Your task to perform on an android device: toggle sleep mode Image 0: 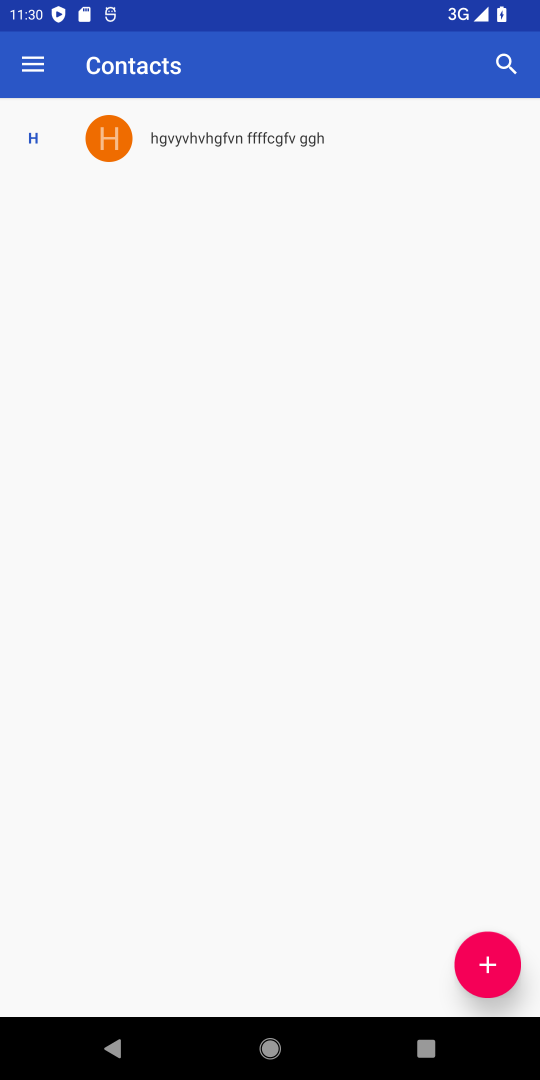
Step 0: press home button
Your task to perform on an android device: toggle sleep mode Image 1: 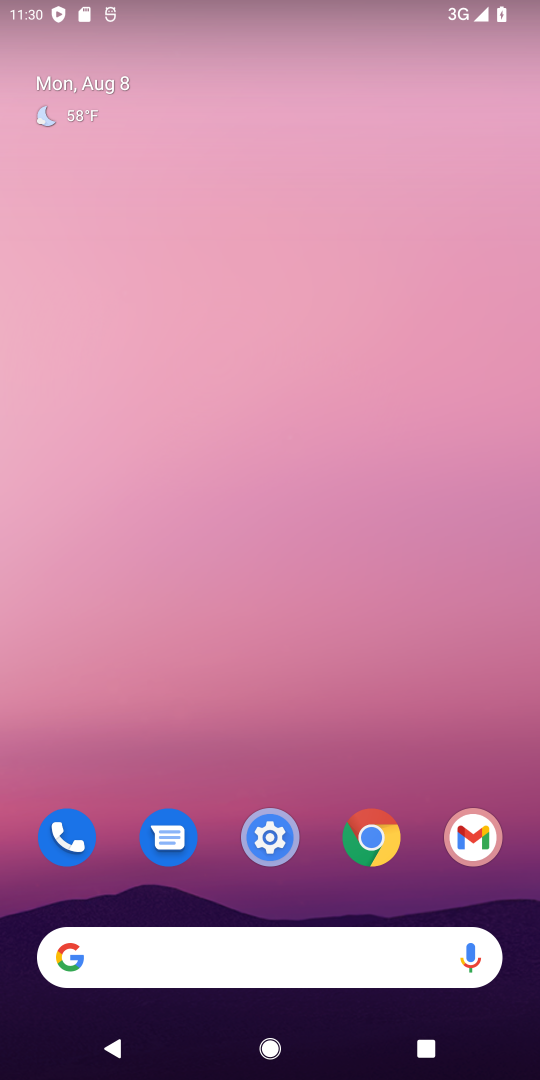
Step 1: drag from (512, 744) to (418, 186)
Your task to perform on an android device: toggle sleep mode Image 2: 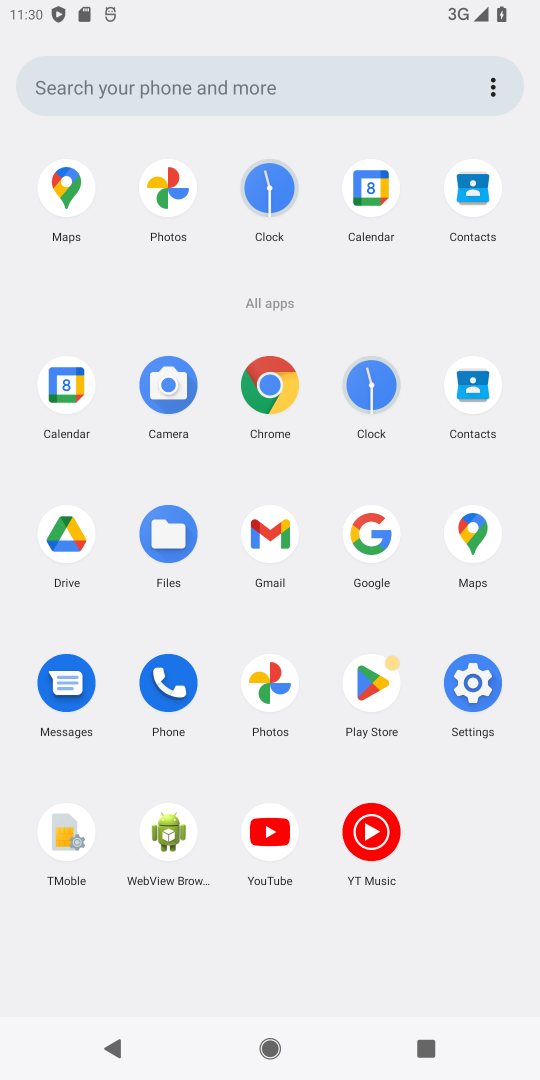
Step 2: click (478, 683)
Your task to perform on an android device: toggle sleep mode Image 3: 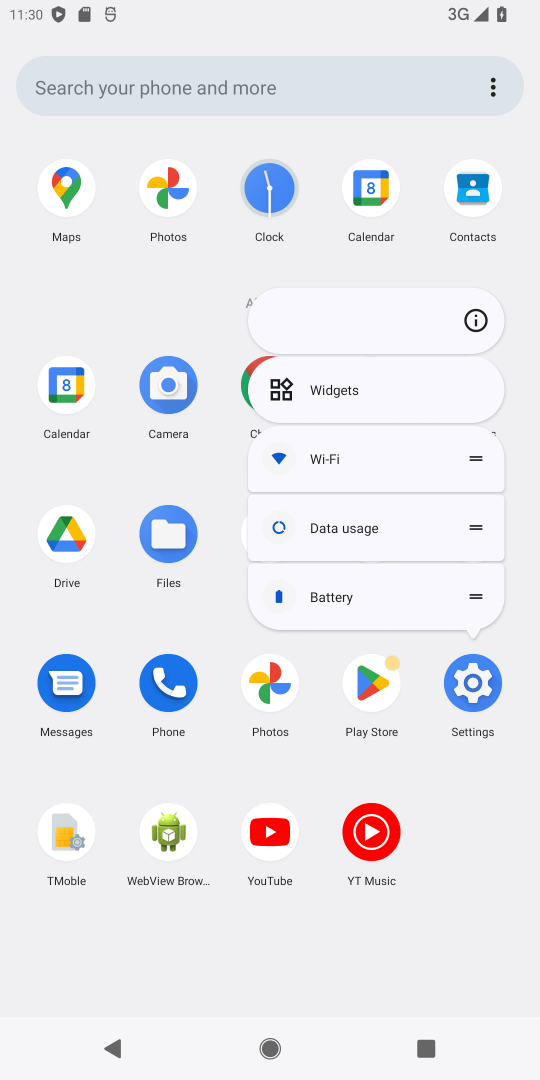
Step 3: click (478, 683)
Your task to perform on an android device: toggle sleep mode Image 4: 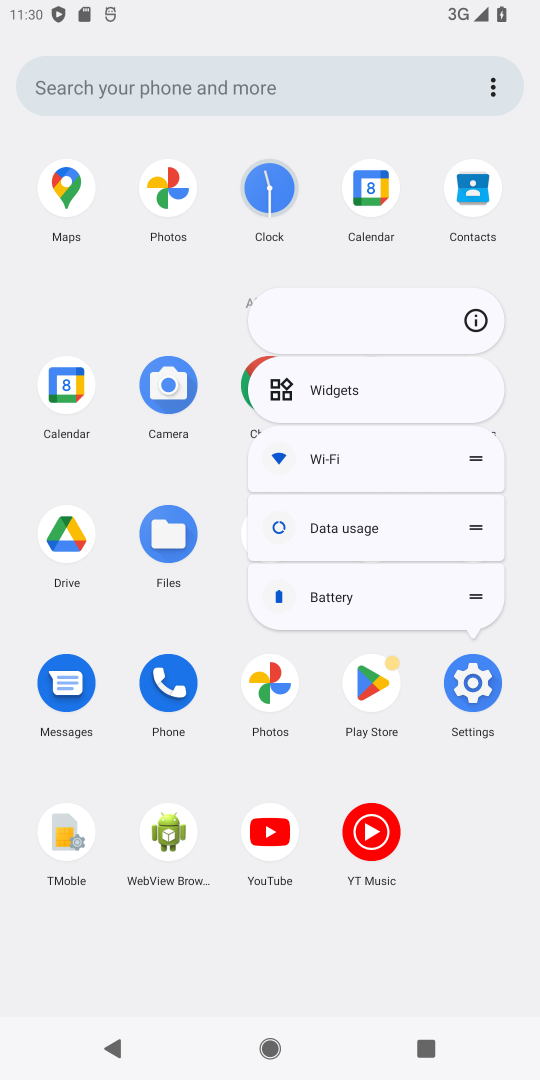
Step 4: click (478, 683)
Your task to perform on an android device: toggle sleep mode Image 5: 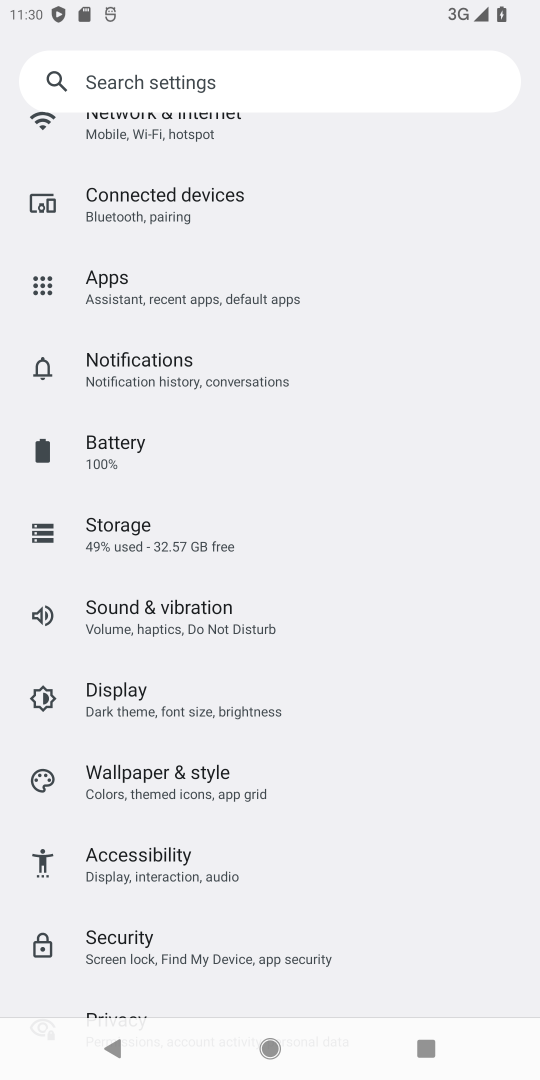
Step 5: click (120, 689)
Your task to perform on an android device: toggle sleep mode Image 6: 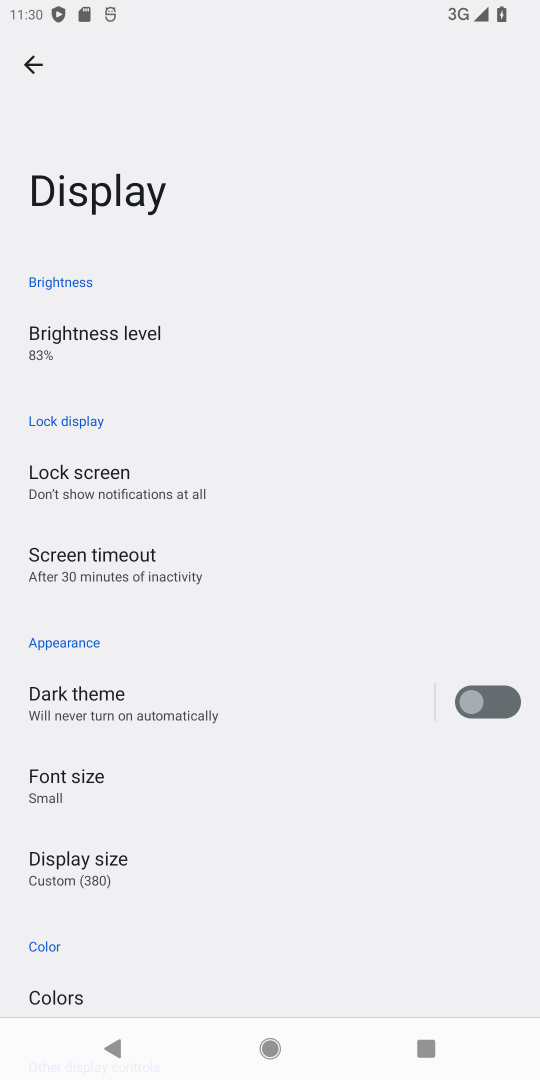
Step 6: click (96, 561)
Your task to perform on an android device: toggle sleep mode Image 7: 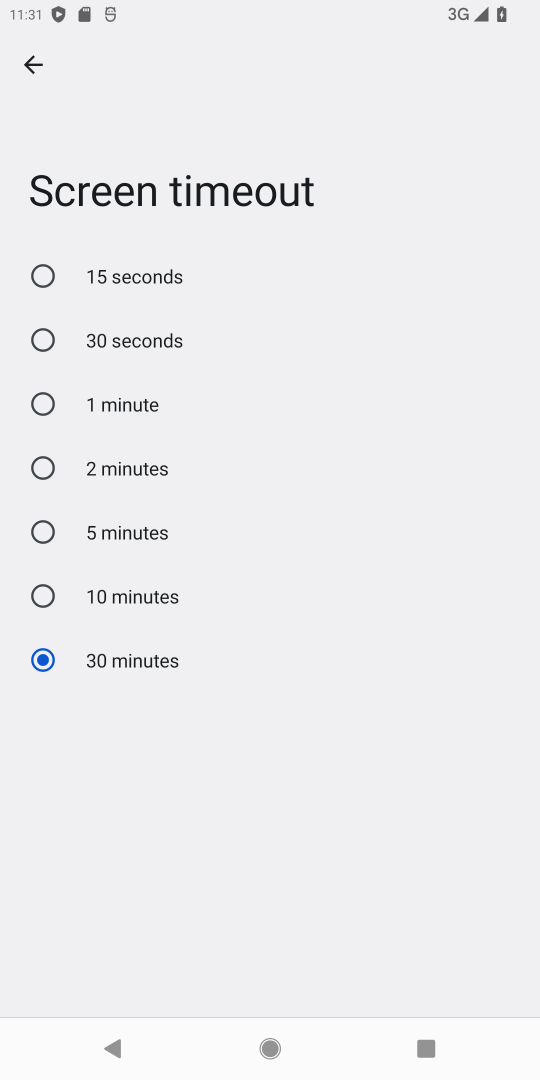
Step 7: click (46, 527)
Your task to perform on an android device: toggle sleep mode Image 8: 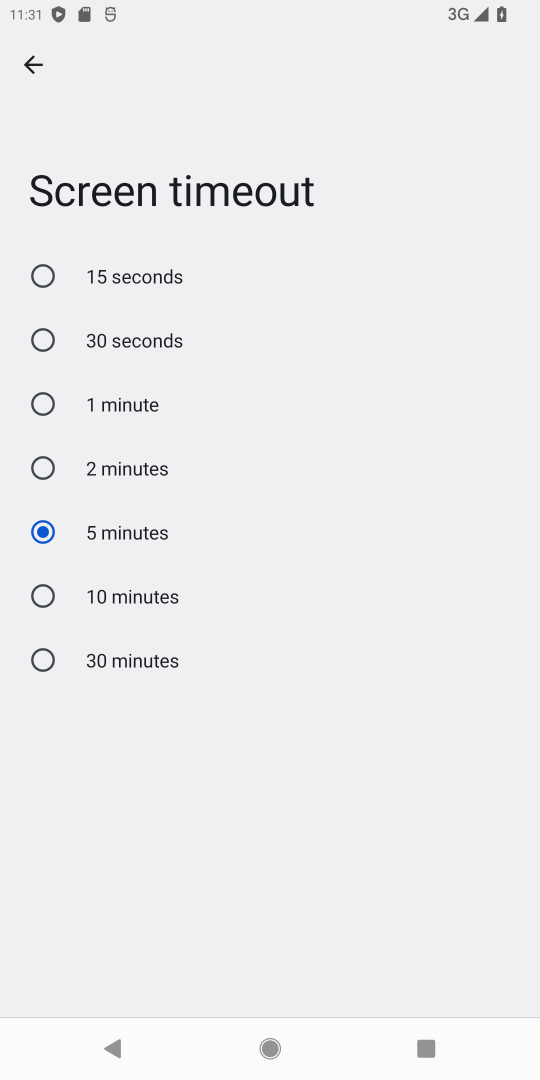
Step 8: task complete